Your task to perform on an android device: toggle priority inbox in the gmail app Image 0: 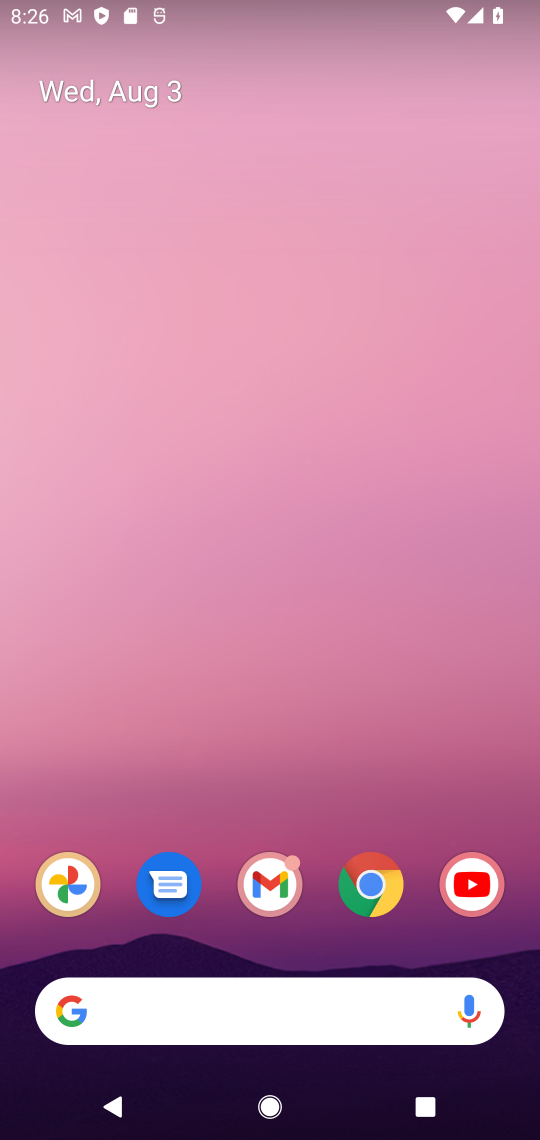
Step 0: click (277, 861)
Your task to perform on an android device: toggle priority inbox in the gmail app Image 1: 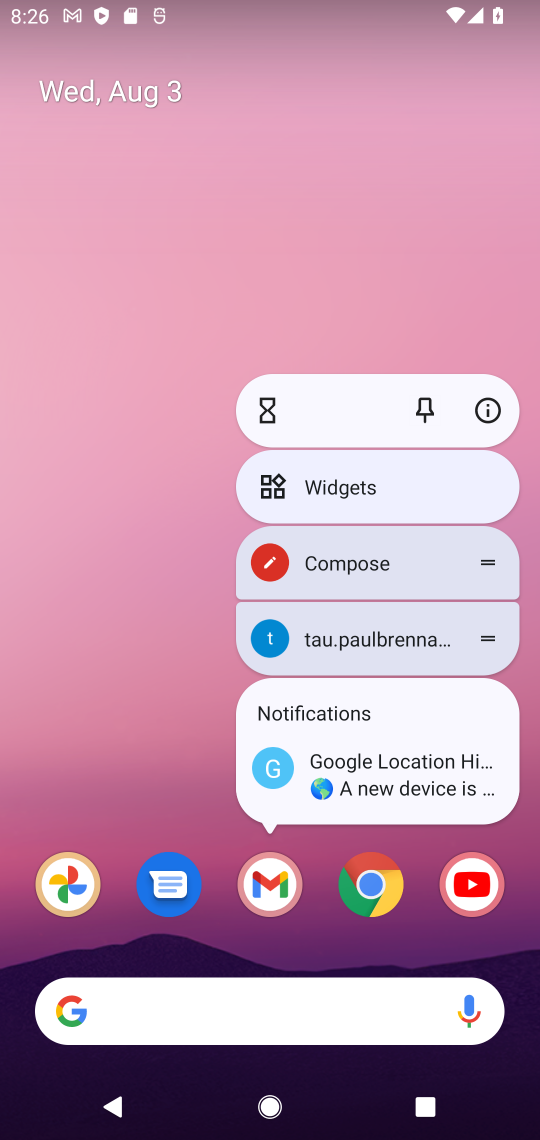
Step 1: click (266, 886)
Your task to perform on an android device: toggle priority inbox in the gmail app Image 2: 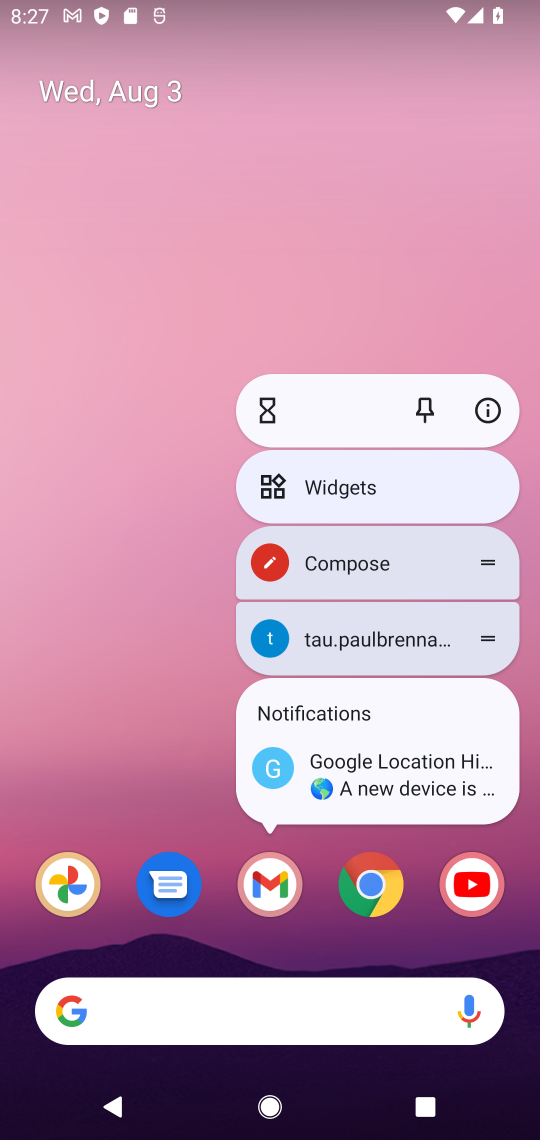
Step 2: click (262, 885)
Your task to perform on an android device: toggle priority inbox in the gmail app Image 3: 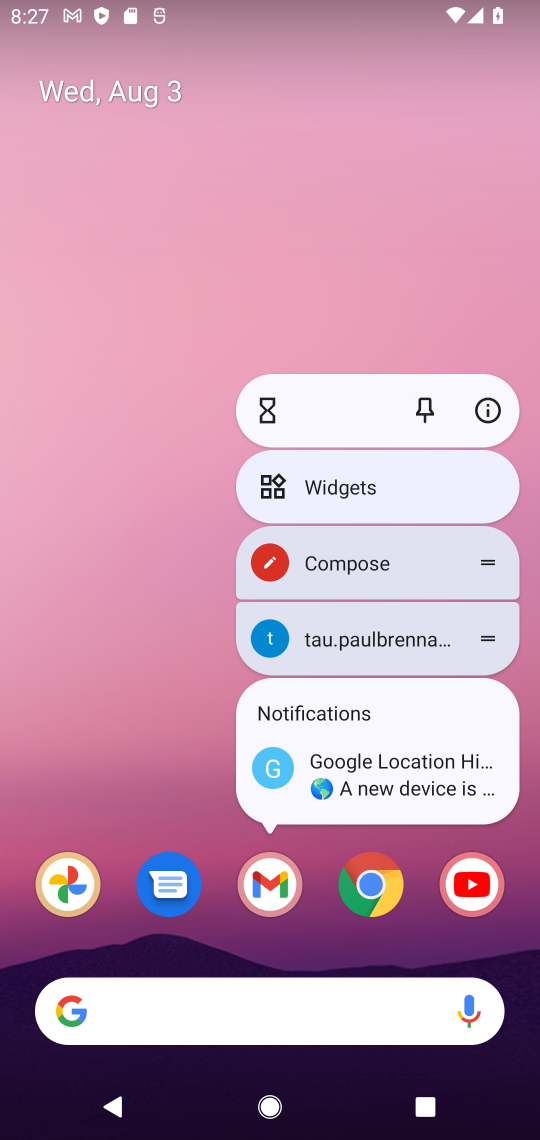
Step 3: click (277, 882)
Your task to perform on an android device: toggle priority inbox in the gmail app Image 4: 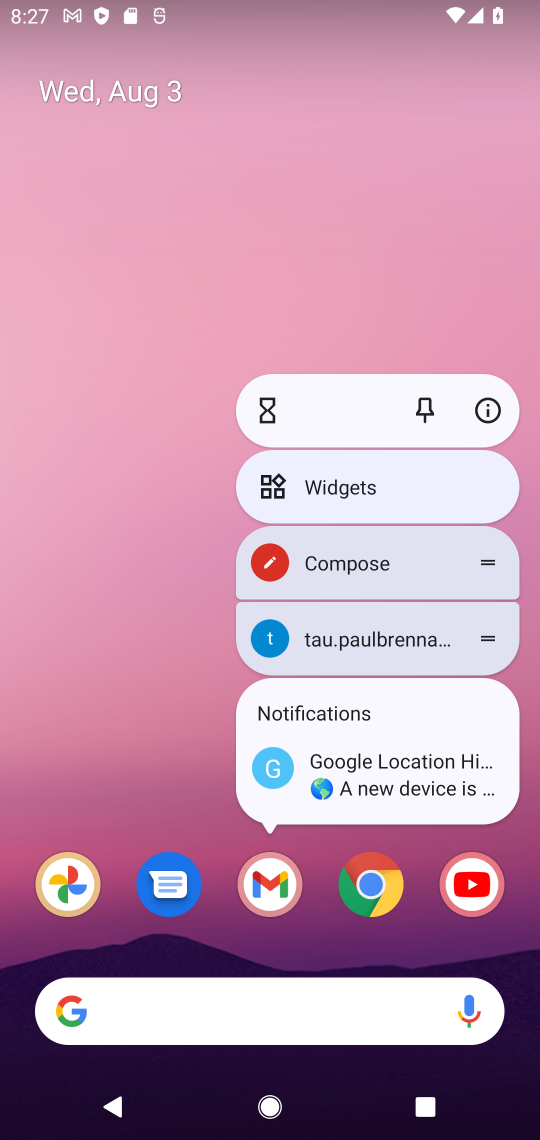
Step 4: click (263, 872)
Your task to perform on an android device: toggle priority inbox in the gmail app Image 5: 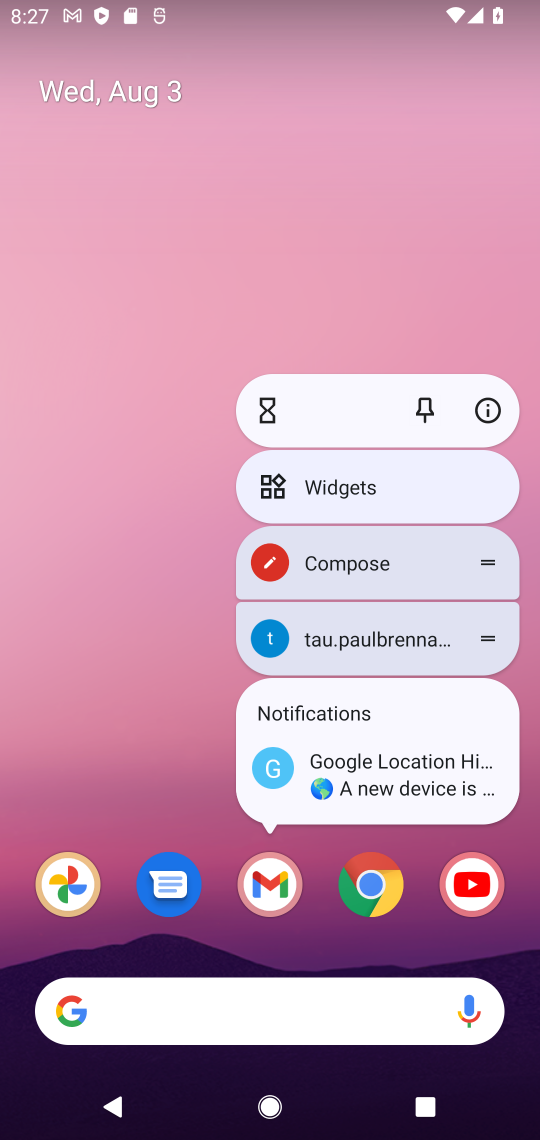
Step 5: click (266, 888)
Your task to perform on an android device: toggle priority inbox in the gmail app Image 6: 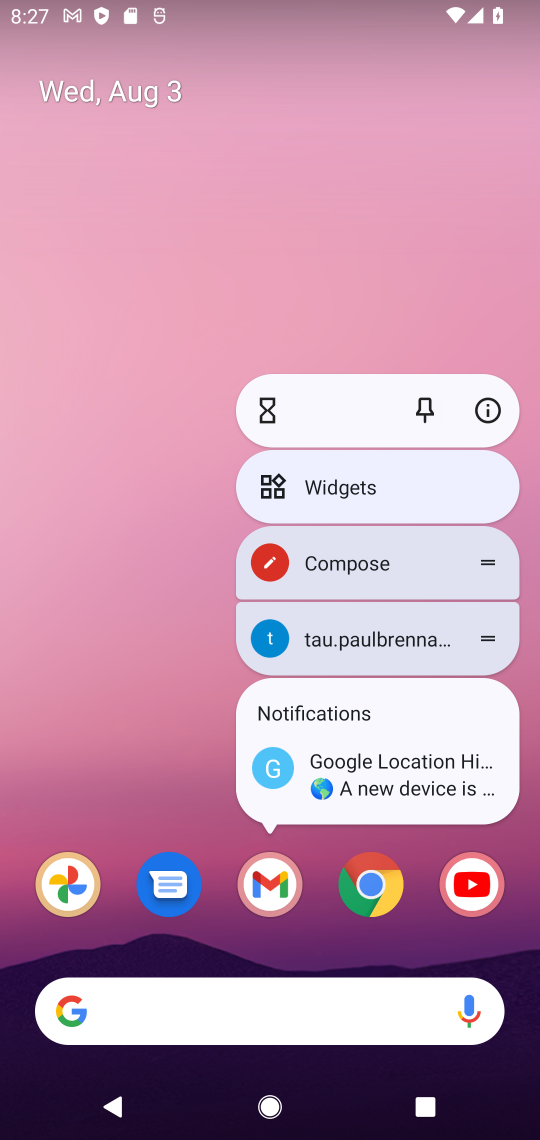
Step 6: task complete